Your task to perform on an android device: Show me recent news Image 0: 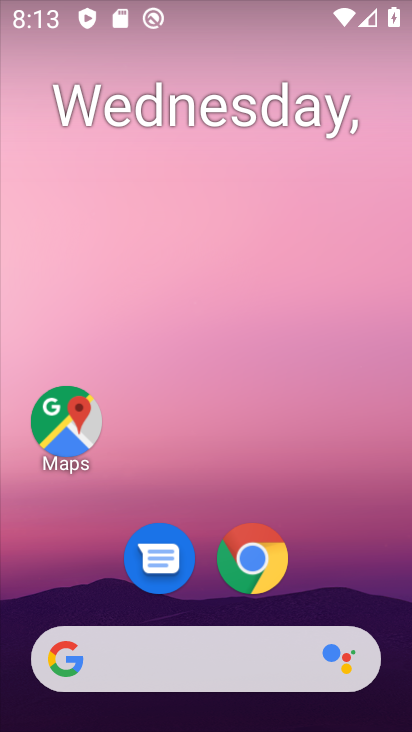
Step 0: drag from (317, 583) to (250, 77)
Your task to perform on an android device: Show me recent news Image 1: 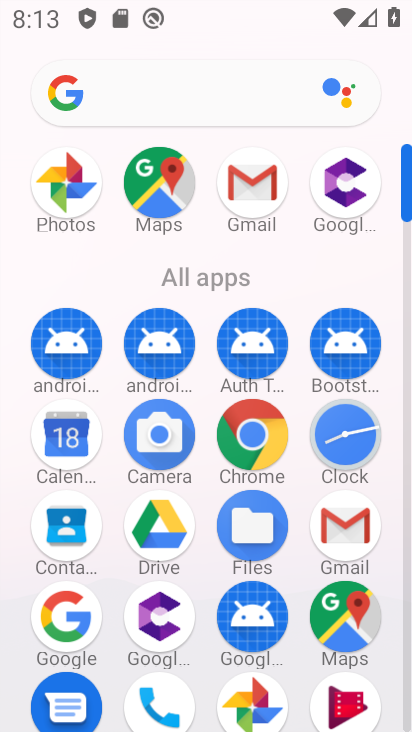
Step 1: drag from (295, 310) to (252, 3)
Your task to perform on an android device: Show me recent news Image 2: 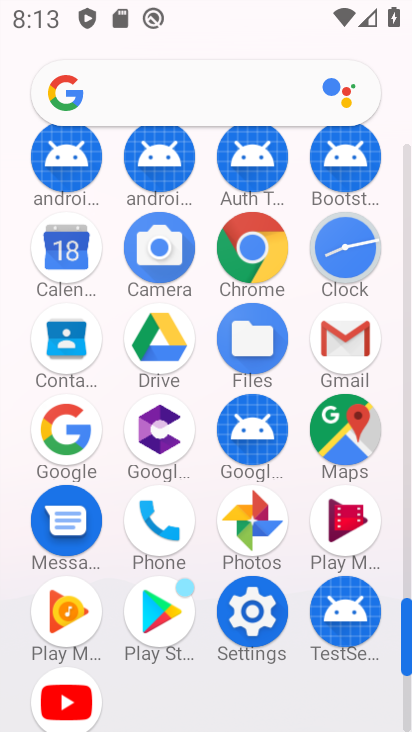
Step 2: click (265, 256)
Your task to perform on an android device: Show me recent news Image 3: 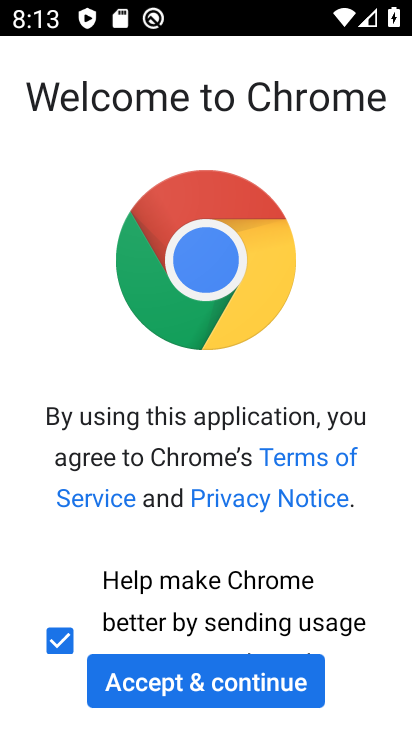
Step 3: click (275, 674)
Your task to perform on an android device: Show me recent news Image 4: 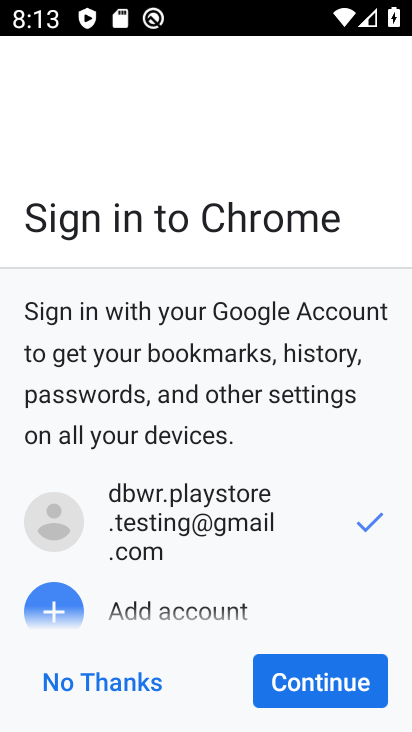
Step 4: click (291, 684)
Your task to perform on an android device: Show me recent news Image 5: 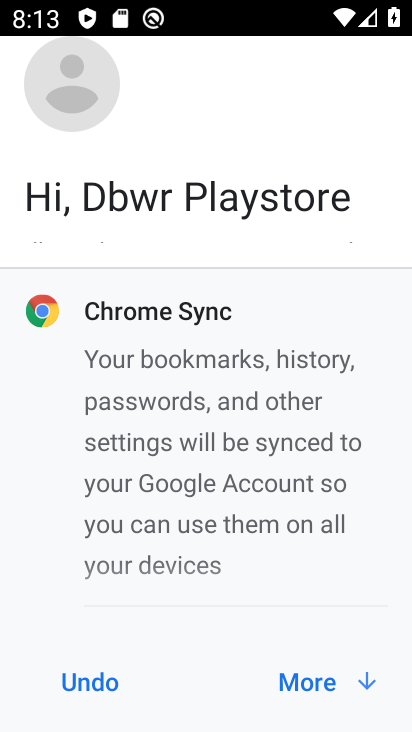
Step 5: click (291, 684)
Your task to perform on an android device: Show me recent news Image 6: 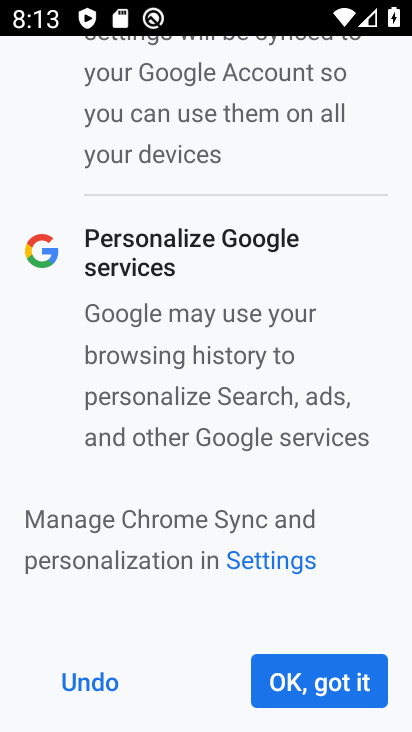
Step 6: click (291, 684)
Your task to perform on an android device: Show me recent news Image 7: 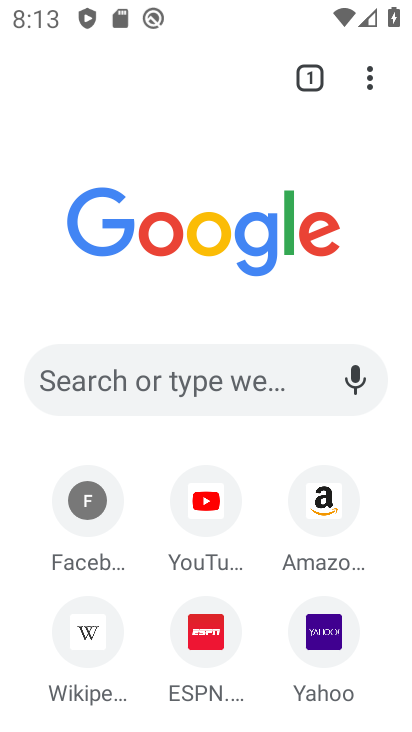
Step 7: click (246, 388)
Your task to perform on an android device: Show me recent news Image 8: 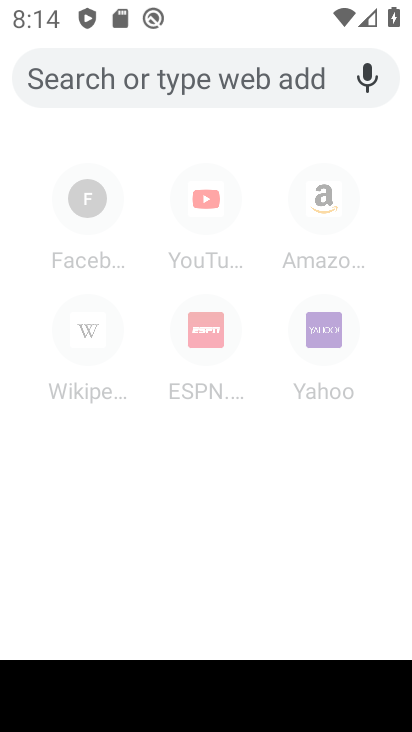
Step 8: type "Show me recent news"
Your task to perform on an android device: Show me recent news Image 9: 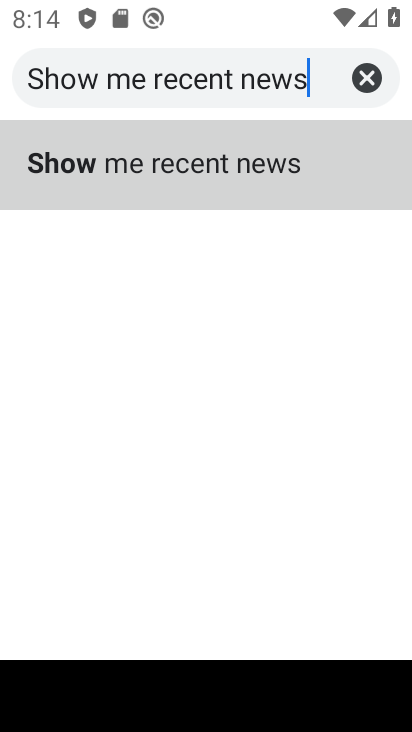
Step 9: click (235, 165)
Your task to perform on an android device: Show me recent news Image 10: 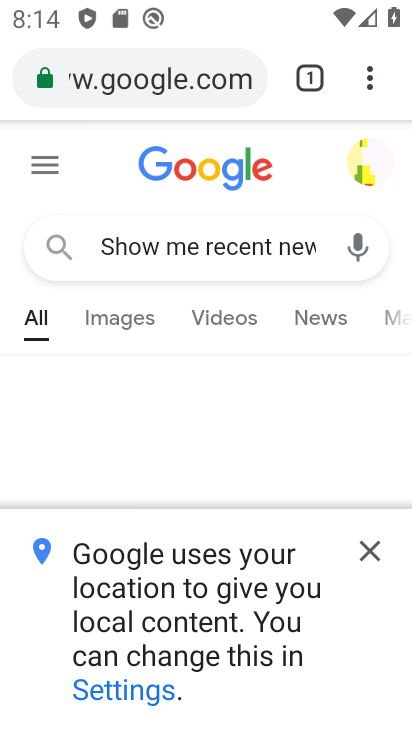
Step 10: click (363, 552)
Your task to perform on an android device: Show me recent news Image 11: 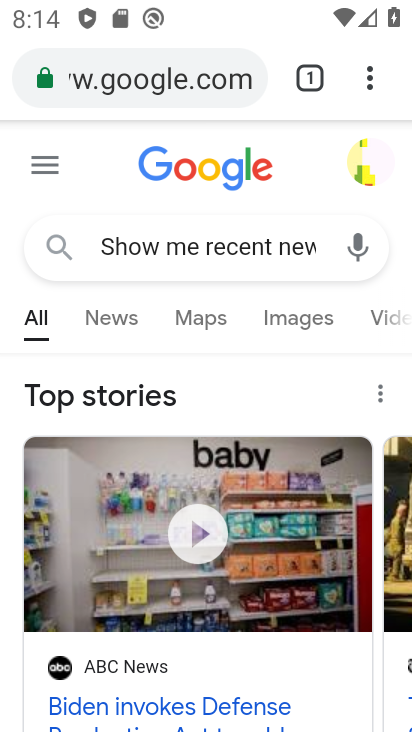
Step 11: click (122, 309)
Your task to perform on an android device: Show me recent news Image 12: 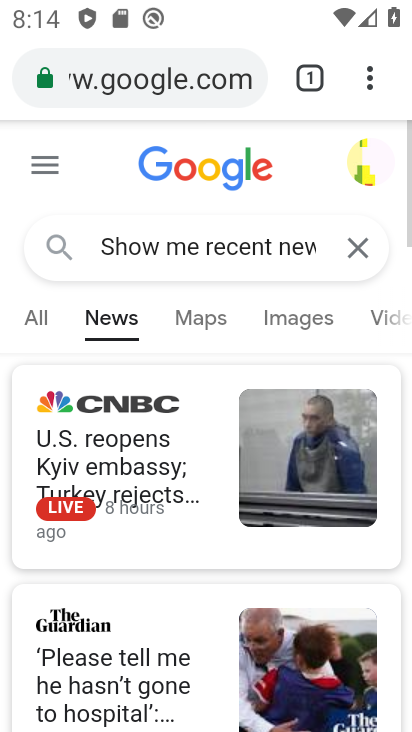
Step 12: task complete